Your task to perform on an android device: Play the last video I watched on Youtube Image 0: 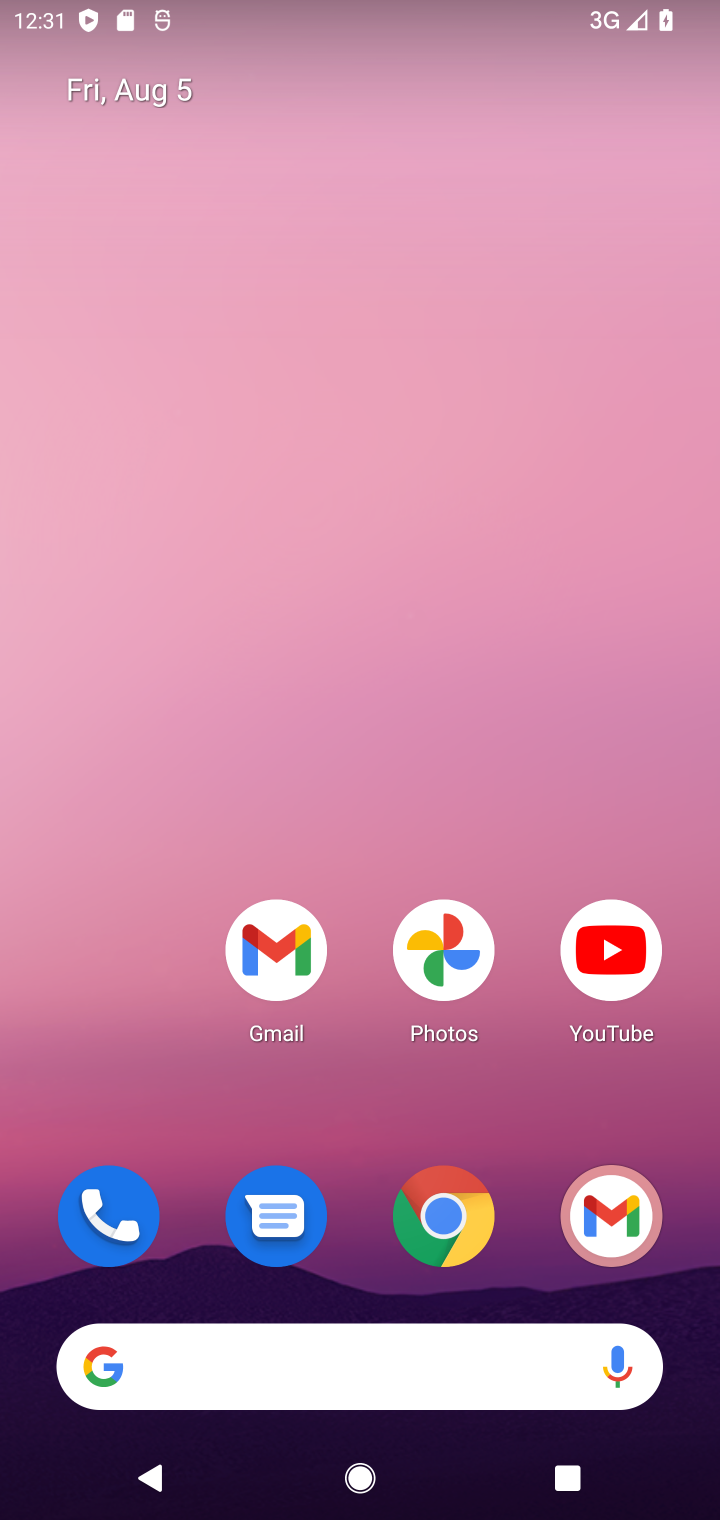
Step 0: drag from (489, 1373) to (649, 74)
Your task to perform on an android device: Play the last video I watched on Youtube Image 1: 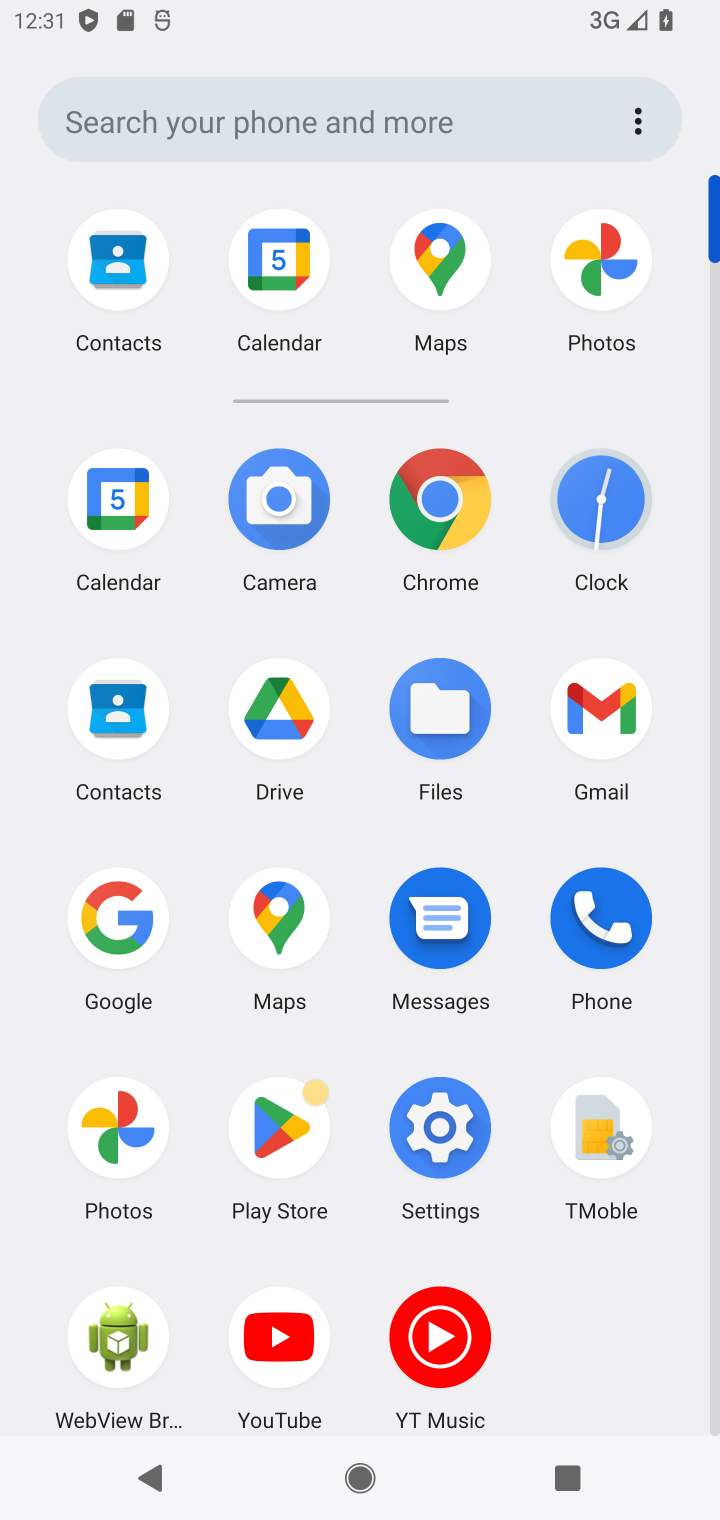
Step 1: click (286, 1330)
Your task to perform on an android device: Play the last video I watched on Youtube Image 2: 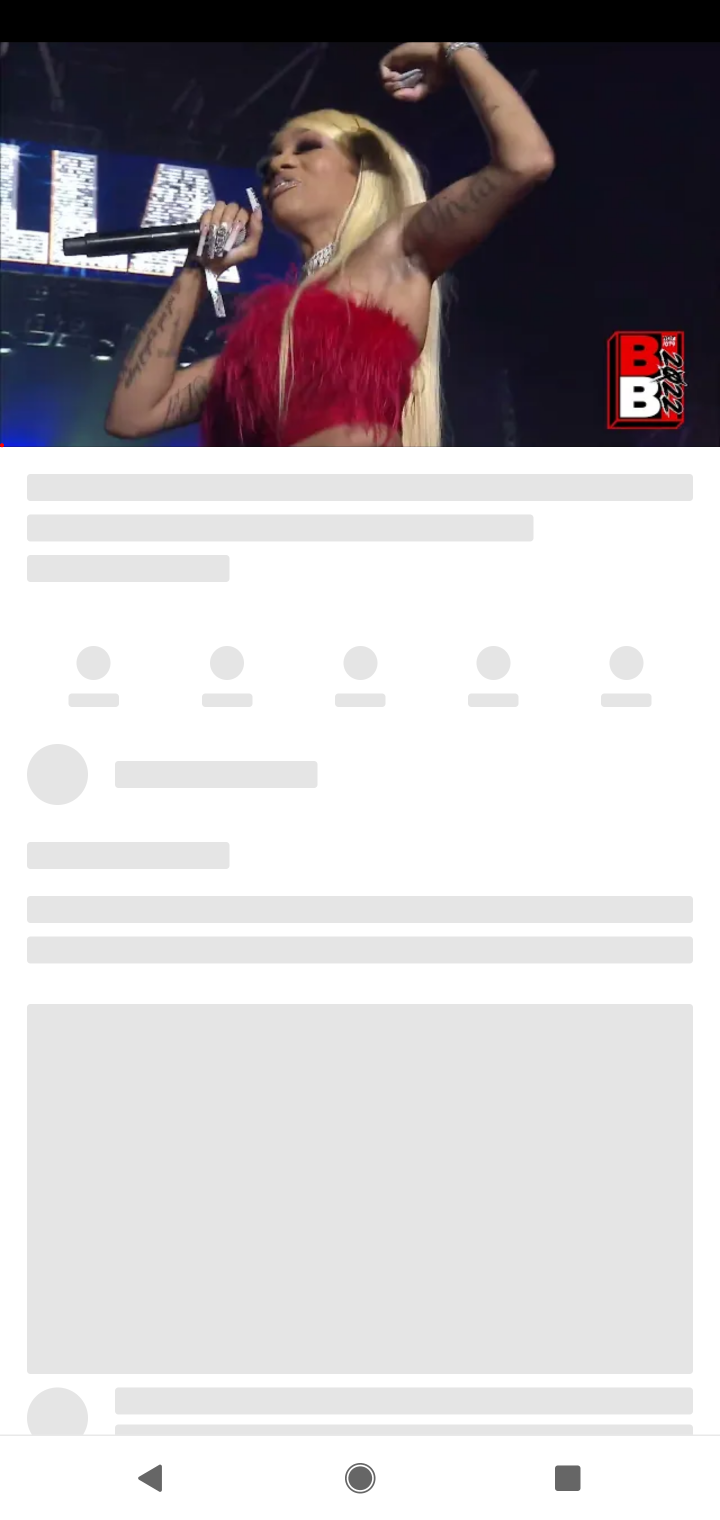
Step 2: task complete